Your task to perform on an android device: set an alarm Image 0: 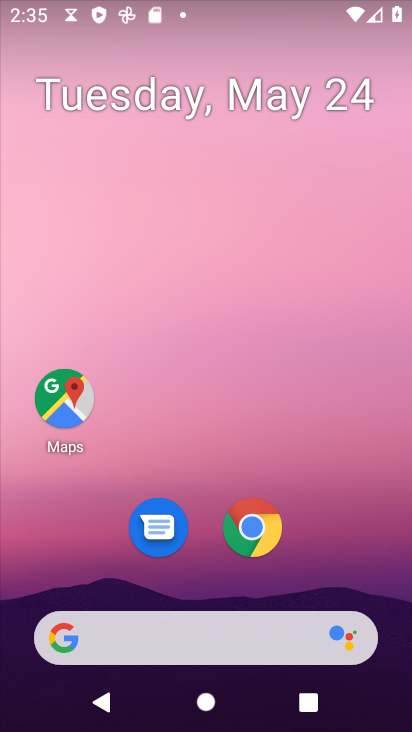
Step 0: press home button
Your task to perform on an android device: set an alarm Image 1: 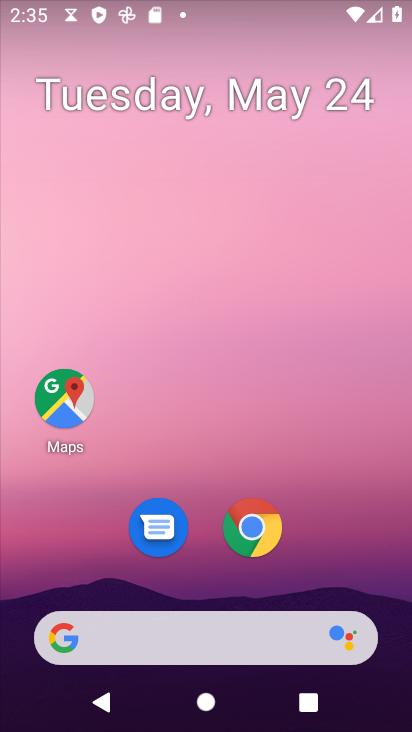
Step 1: drag from (254, 658) to (328, 165)
Your task to perform on an android device: set an alarm Image 2: 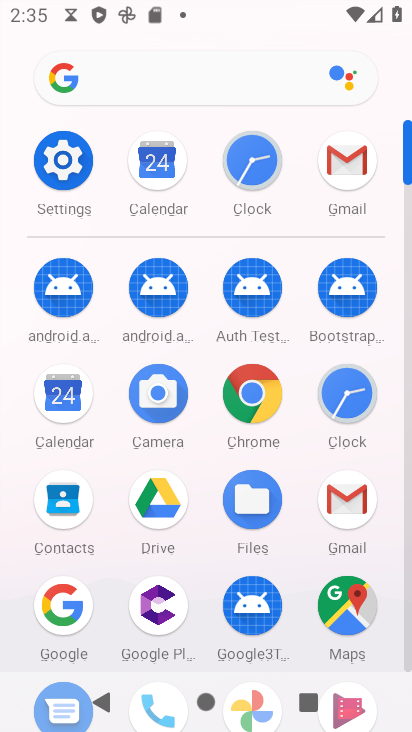
Step 2: click (342, 404)
Your task to perform on an android device: set an alarm Image 3: 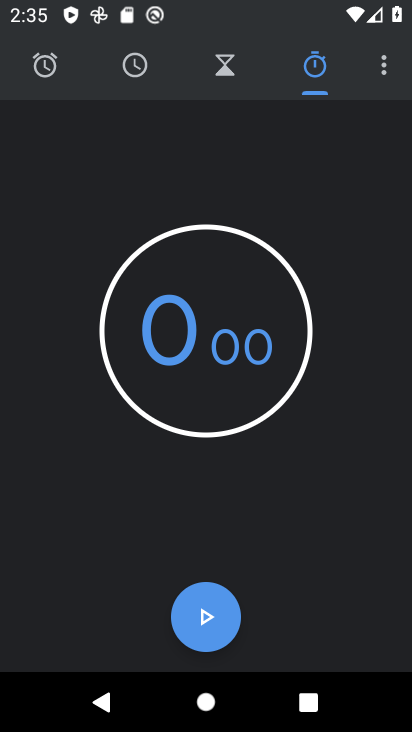
Step 3: click (52, 63)
Your task to perform on an android device: set an alarm Image 4: 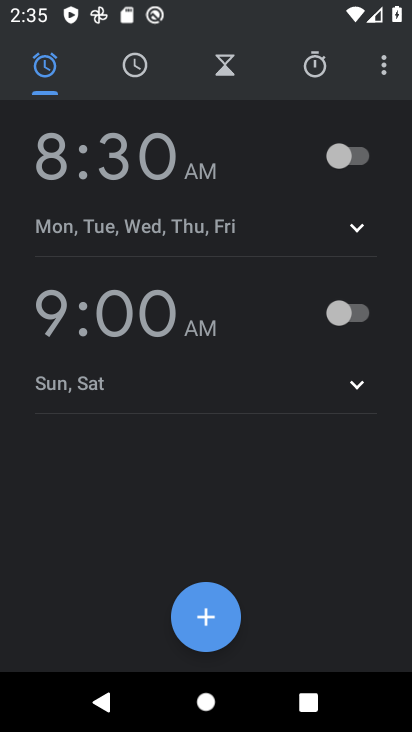
Step 4: click (122, 177)
Your task to perform on an android device: set an alarm Image 5: 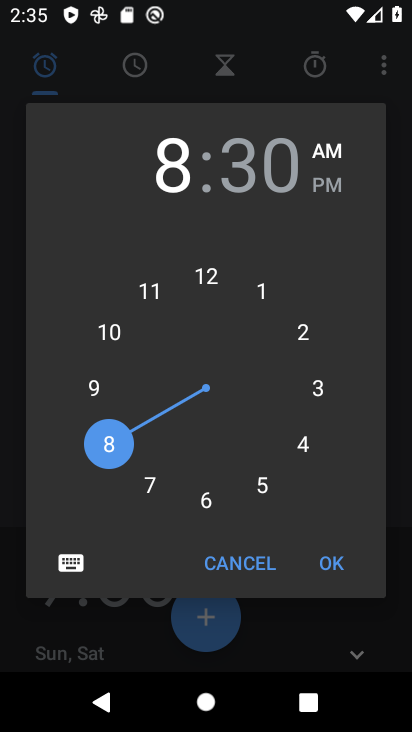
Step 5: click (154, 477)
Your task to perform on an android device: set an alarm Image 6: 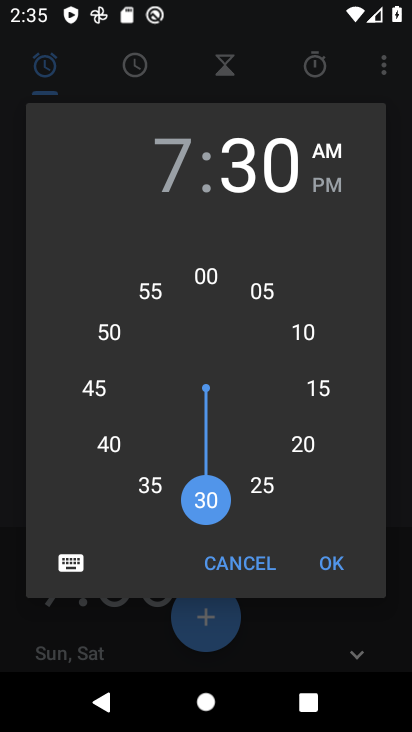
Step 6: click (316, 560)
Your task to perform on an android device: set an alarm Image 7: 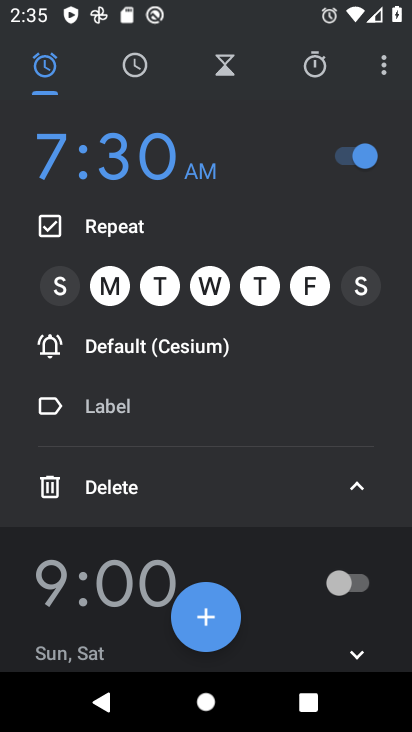
Step 7: task complete